Your task to perform on an android device: turn smart compose on in the gmail app Image 0: 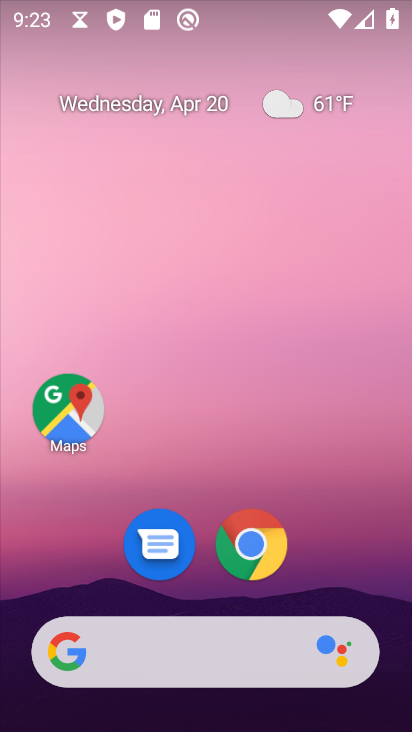
Step 0: drag from (154, 652) to (306, 11)
Your task to perform on an android device: turn smart compose on in the gmail app Image 1: 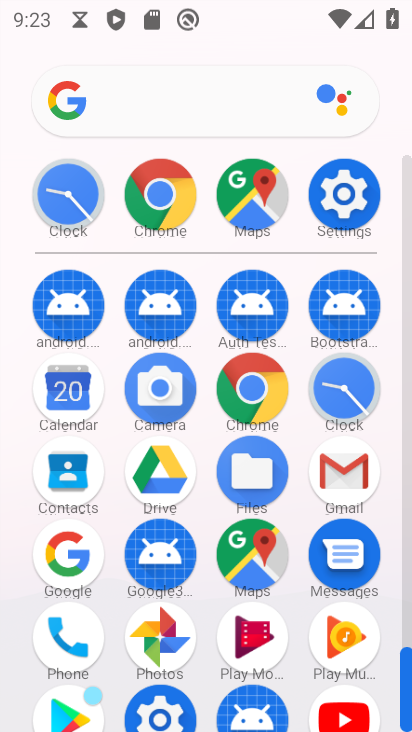
Step 1: click (340, 476)
Your task to perform on an android device: turn smart compose on in the gmail app Image 2: 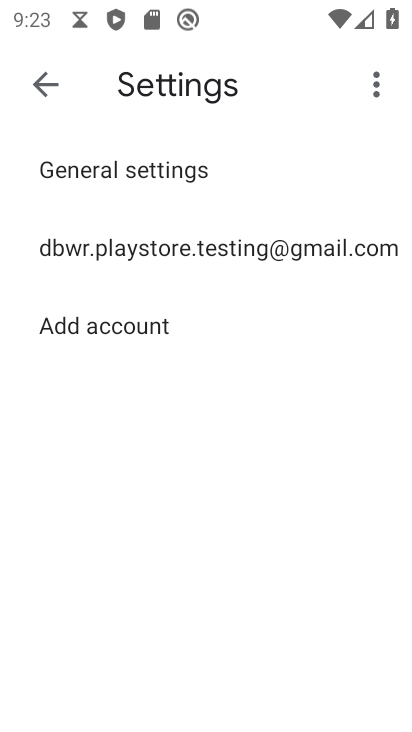
Step 2: click (250, 238)
Your task to perform on an android device: turn smart compose on in the gmail app Image 3: 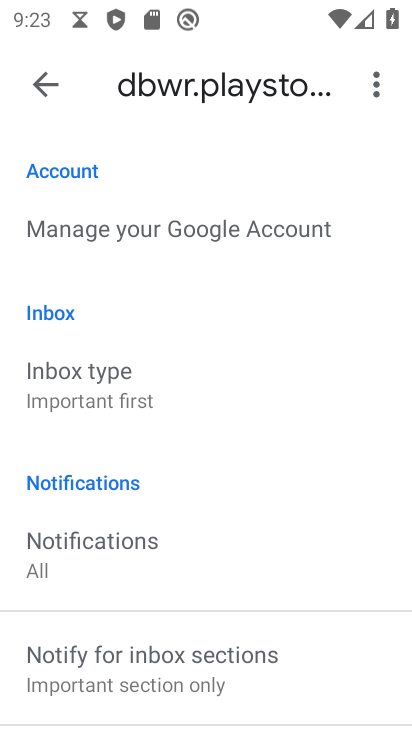
Step 3: task complete